Your task to perform on an android device: Go to sound settings Image 0: 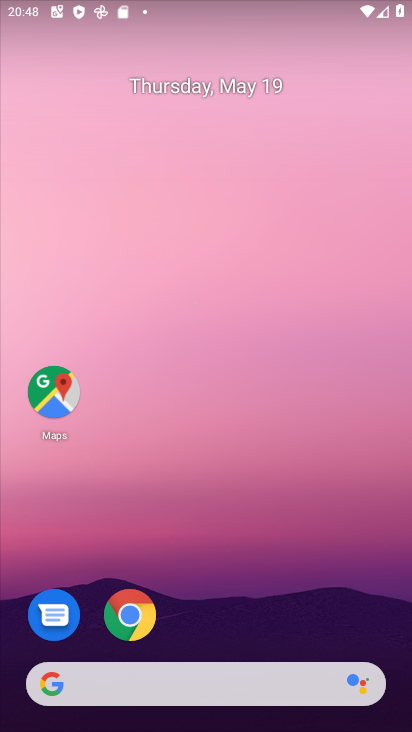
Step 0: drag from (221, 549) to (197, 64)
Your task to perform on an android device: Go to sound settings Image 1: 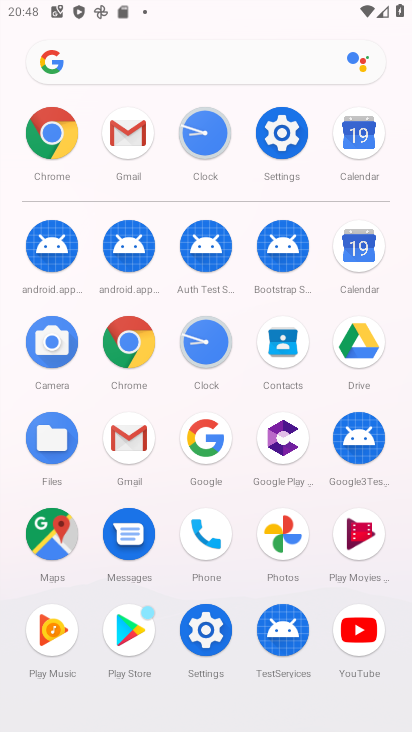
Step 1: click (290, 141)
Your task to perform on an android device: Go to sound settings Image 2: 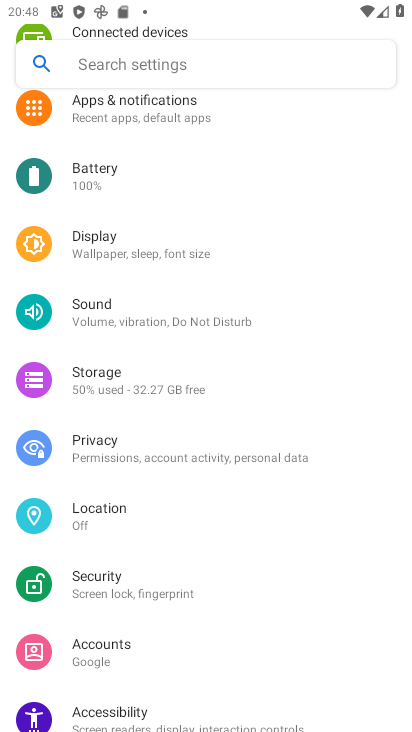
Step 2: click (121, 314)
Your task to perform on an android device: Go to sound settings Image 3: 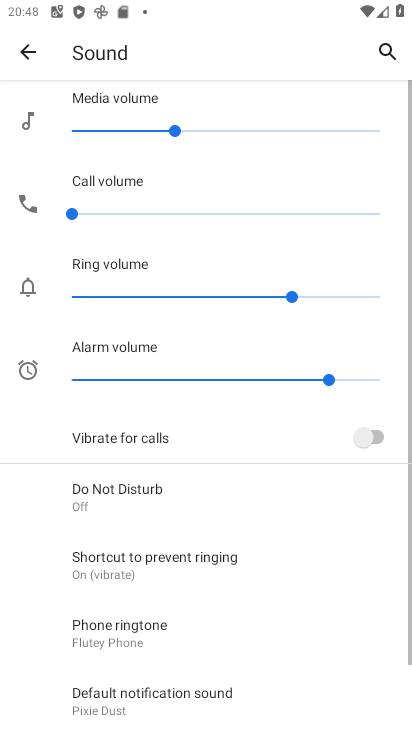
Step 3: task complete